Your task to perform on an android device: View the shopping cart on target.com. Image 0: 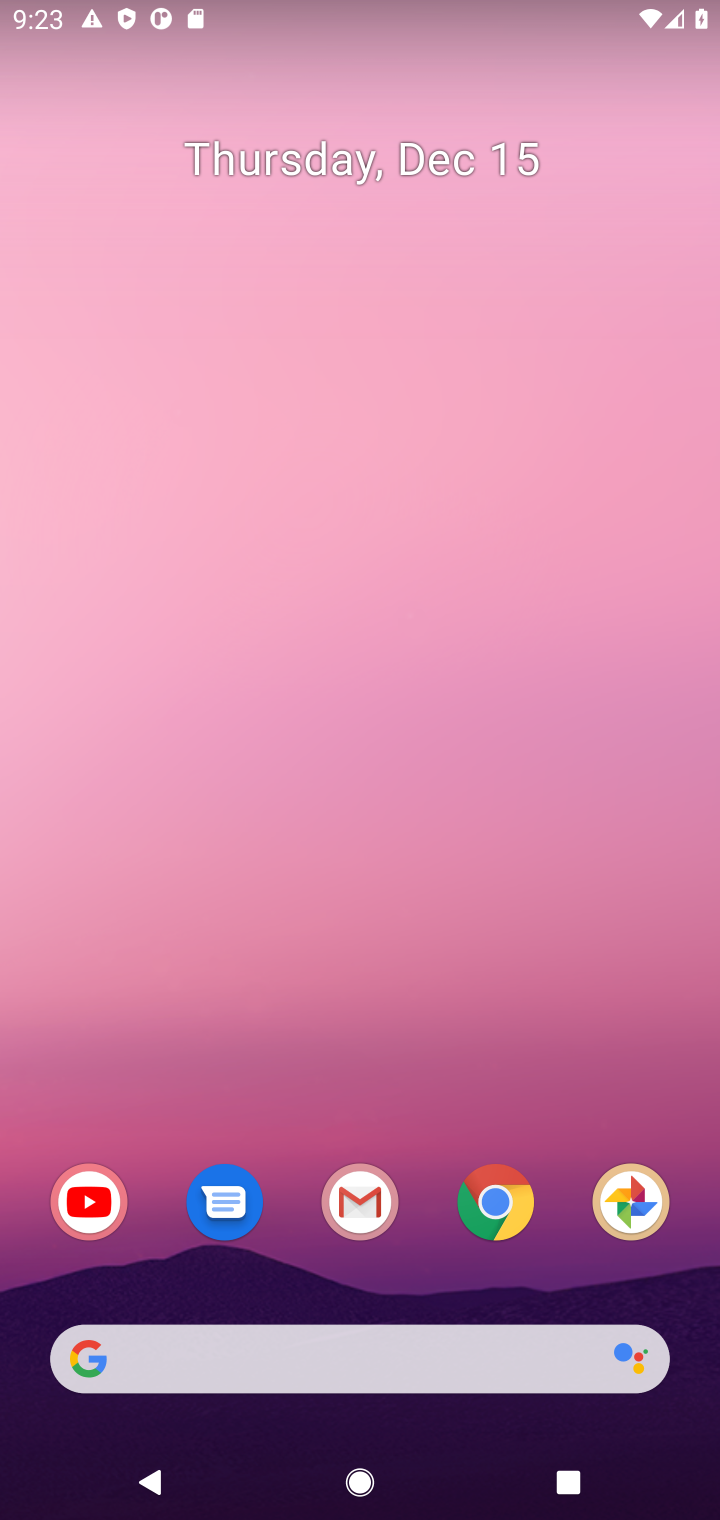
Step 0: click (499, 1215)
Your task to perform on an android device: View the shopping cart on target.com. Image 1: 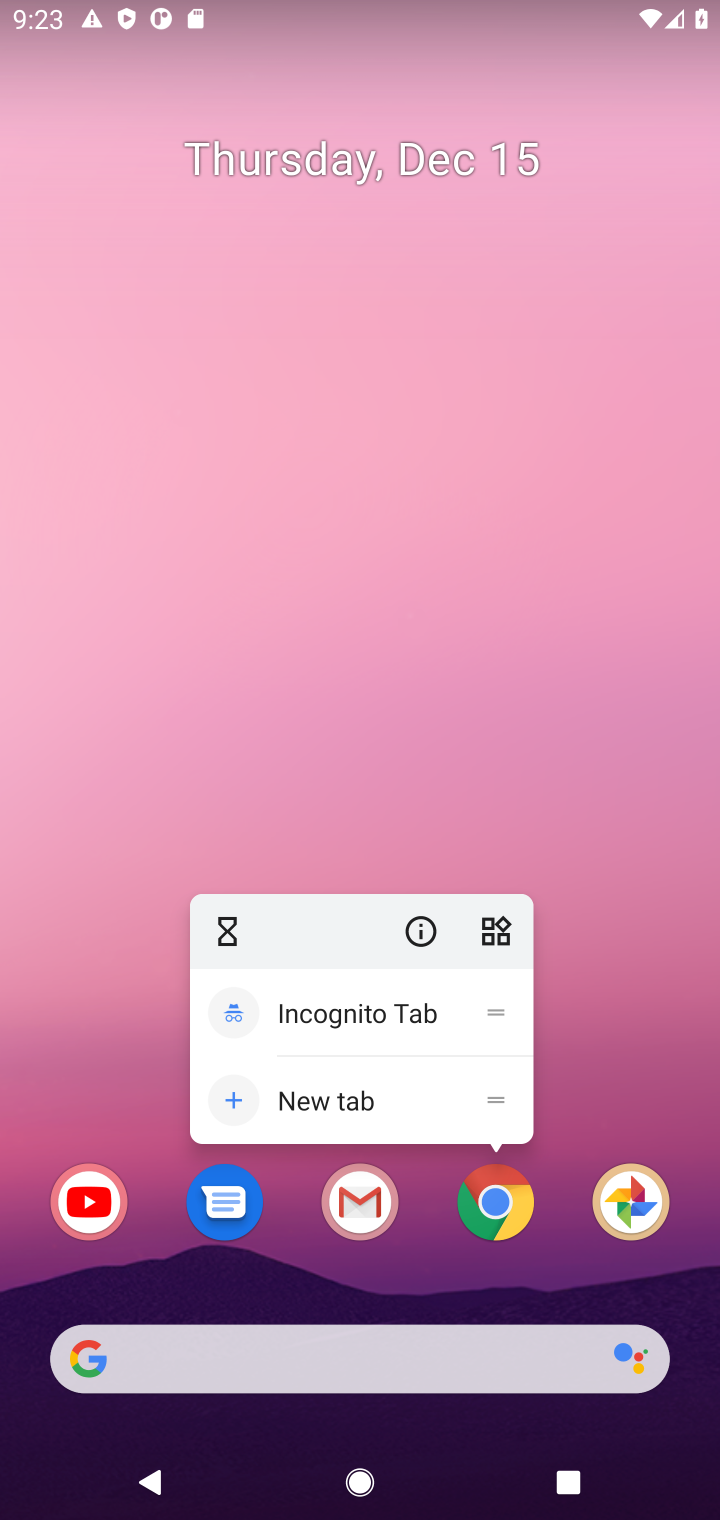
Step 1: click (499, 1215)
Your task to perform on an android device: View the shopping cart on target.com. Image 2: 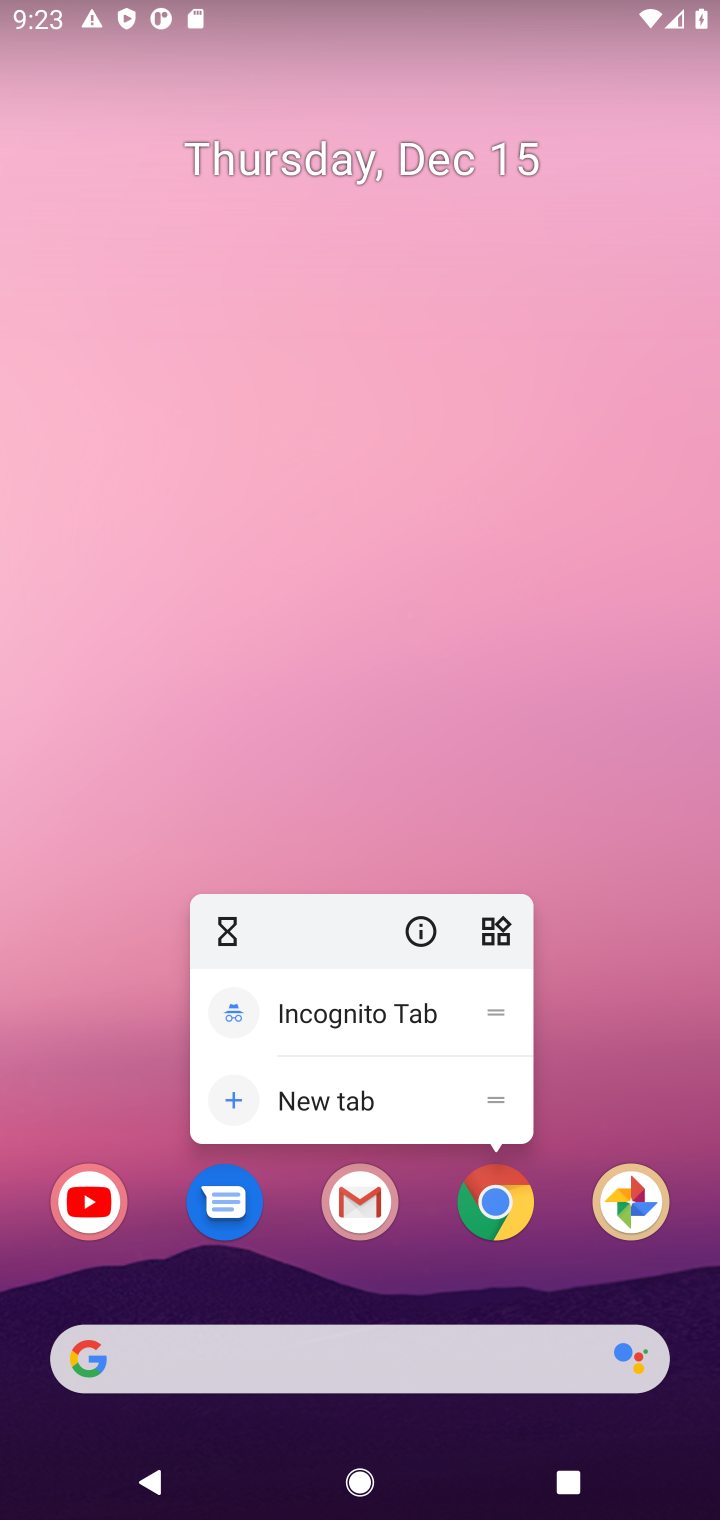
Step 2: click (501, 1208)
Your task to perform on an android device: View the shopping cart on target.com. Image 3: 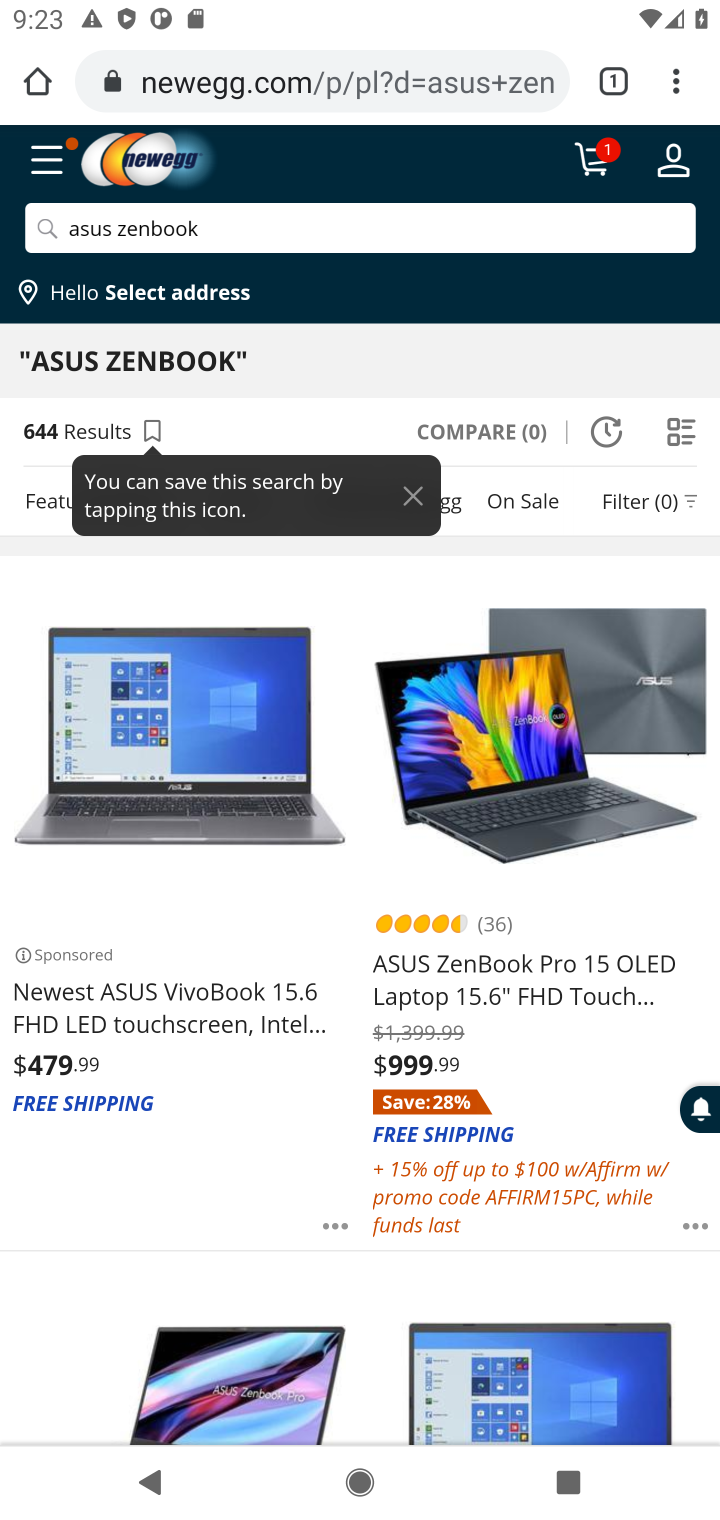
Step 3: click (270, 92)
Your task to perform on an android device: View the shopping cart on target.com. Image 4: 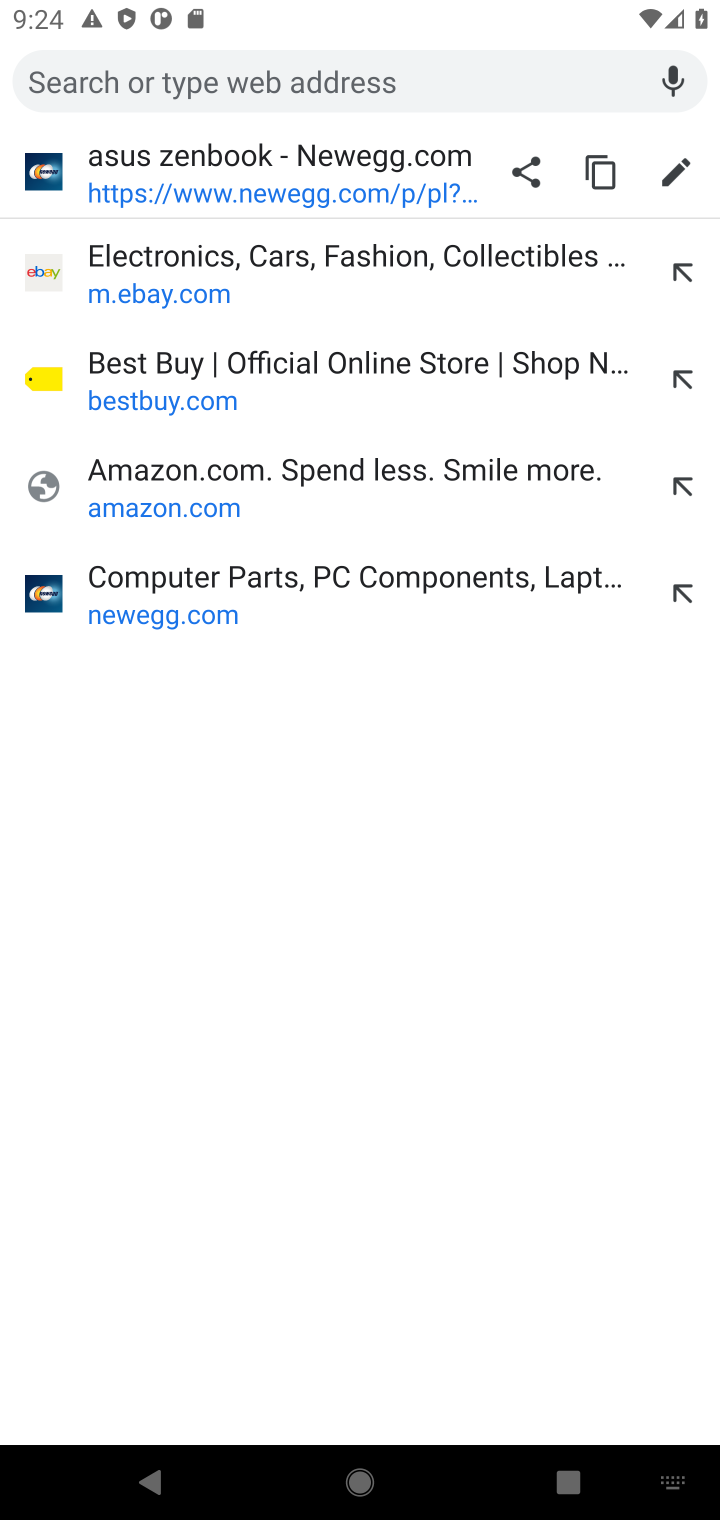
Step 4: type "target.com"
Your task to perform on an android device: View the shopping cart on target.com. Image 5: 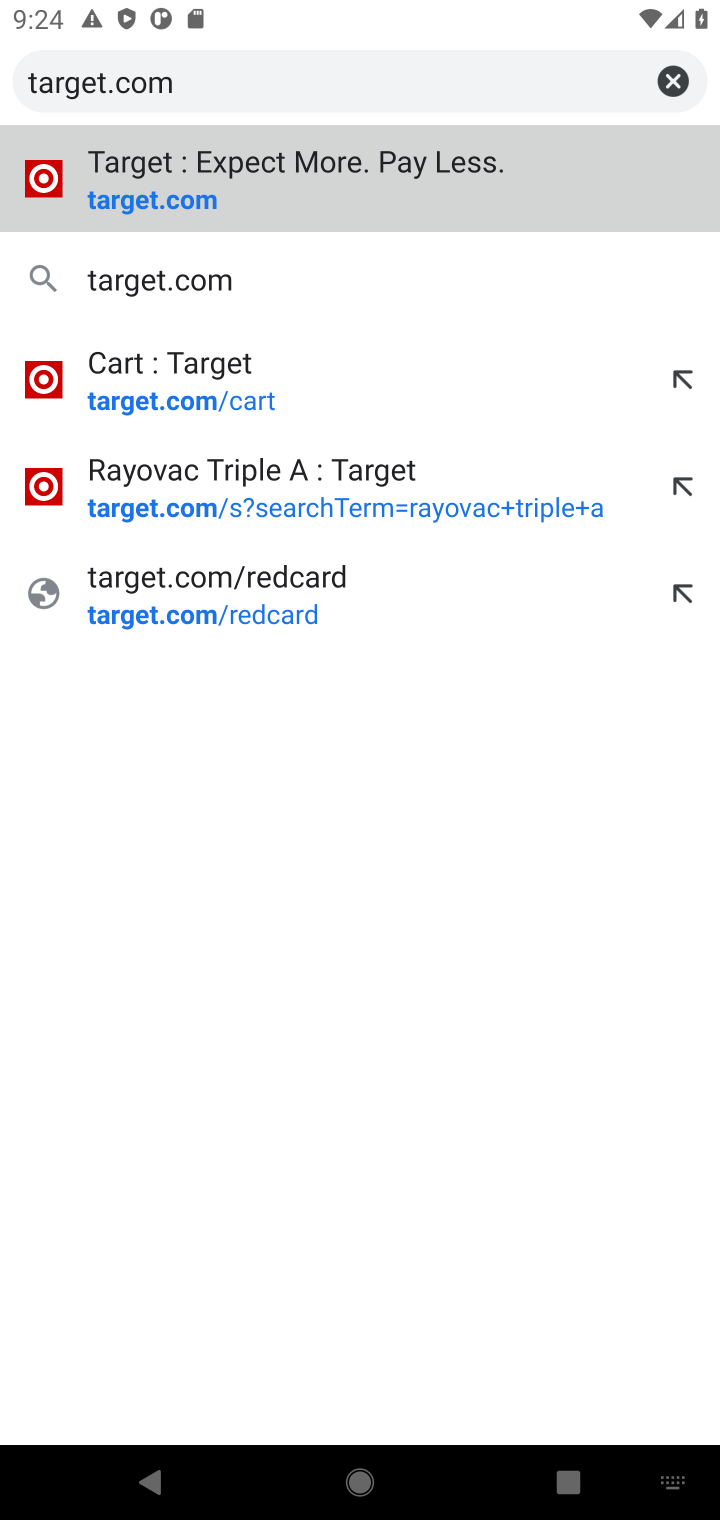
Step 5: click (164, 189)
Your task to perform on an android device: View the shopping cart on target.com. Image 6: 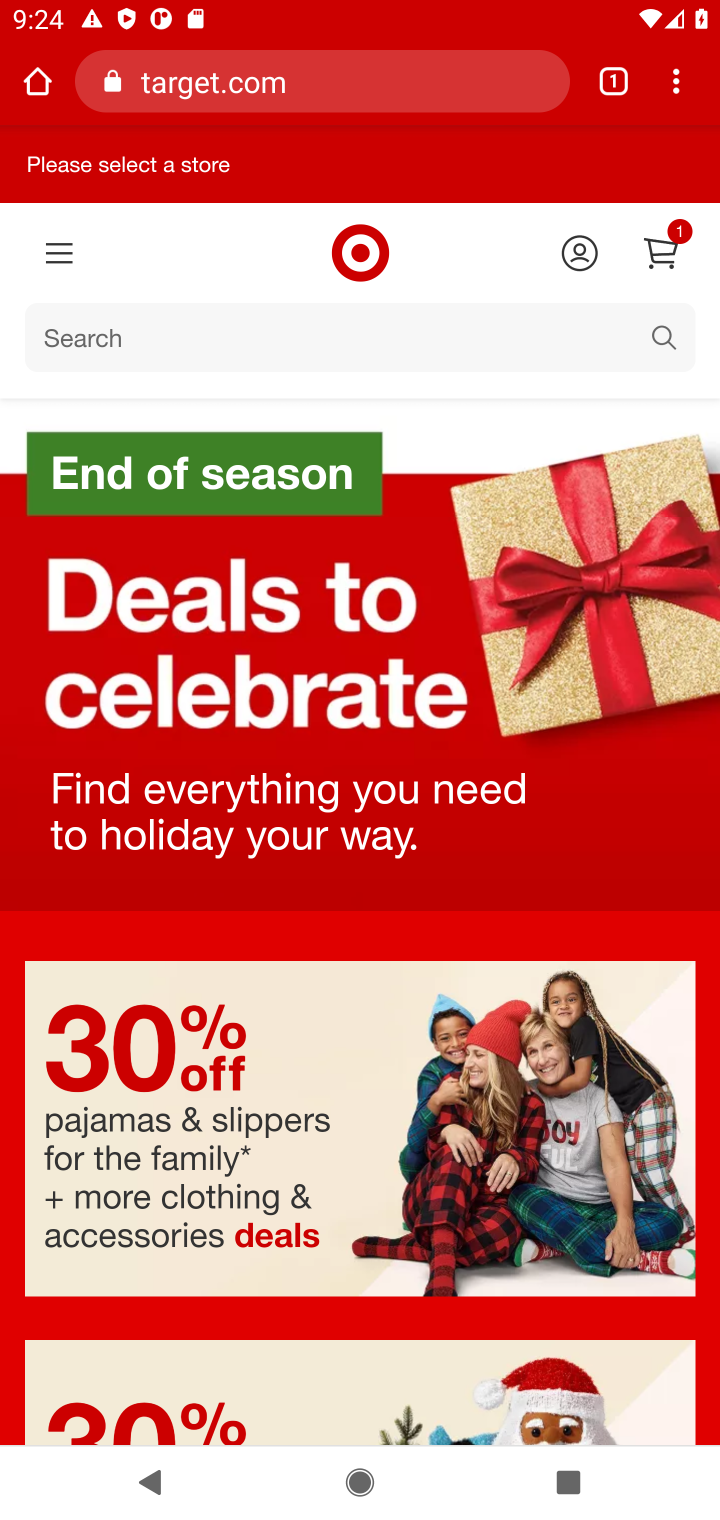
Step 6: click (659, 255)
Your task to perform on an android device: View the shopping cart on target.com. Image 7: 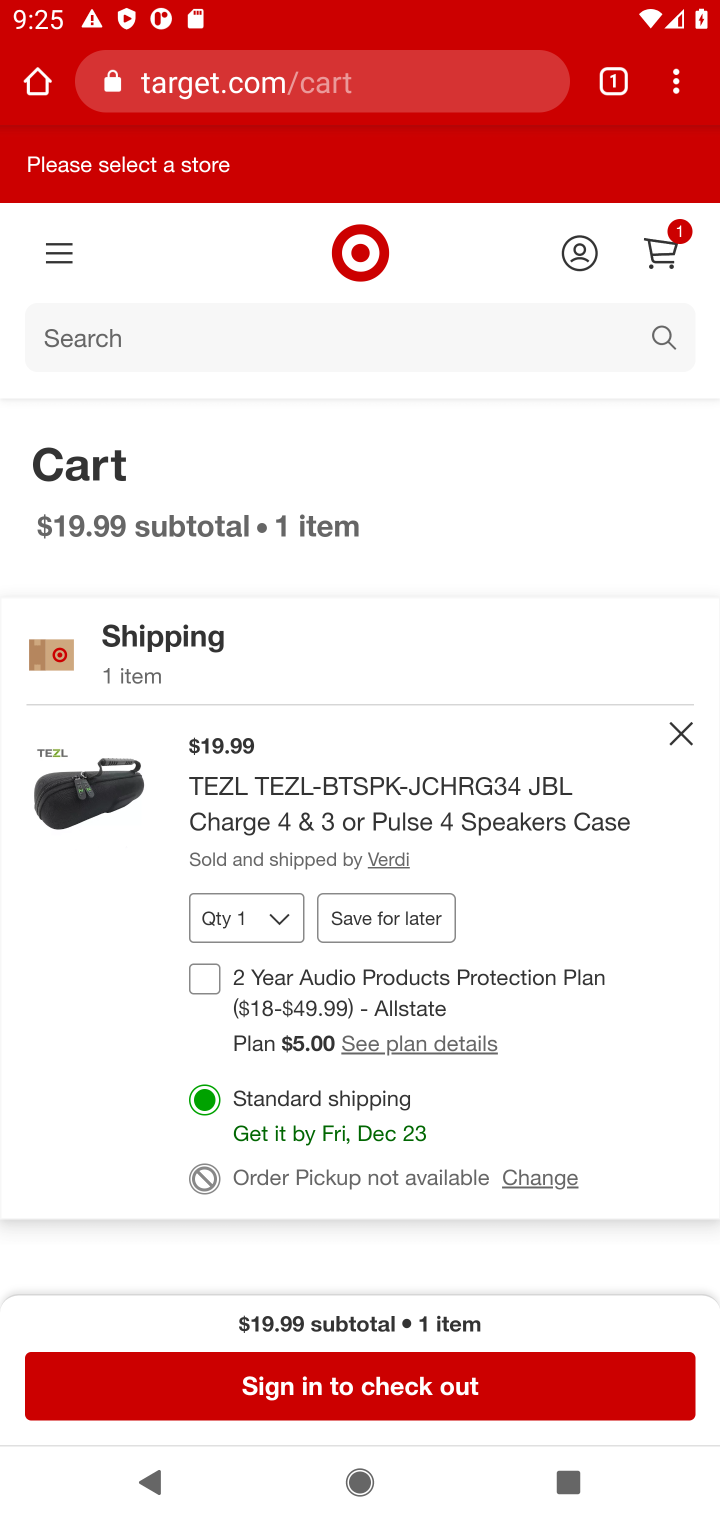
Step 7: task complete